Your task to perform on an android device: Open Android settings Image 0: 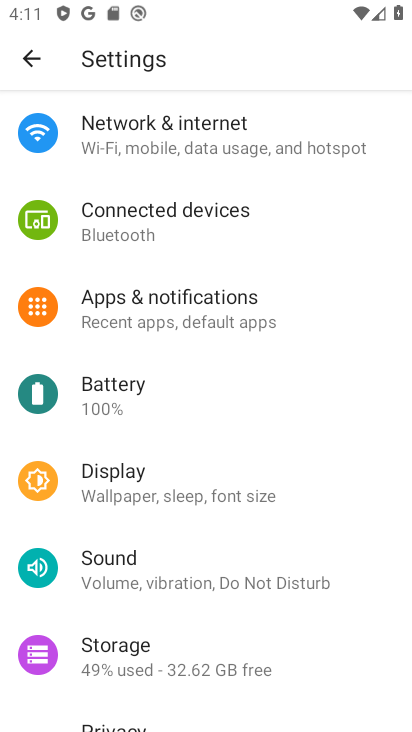
Step 0: drag from (263, 647) to (240, 245)
Your task to perform on an android device: Open Android settings Image 1: 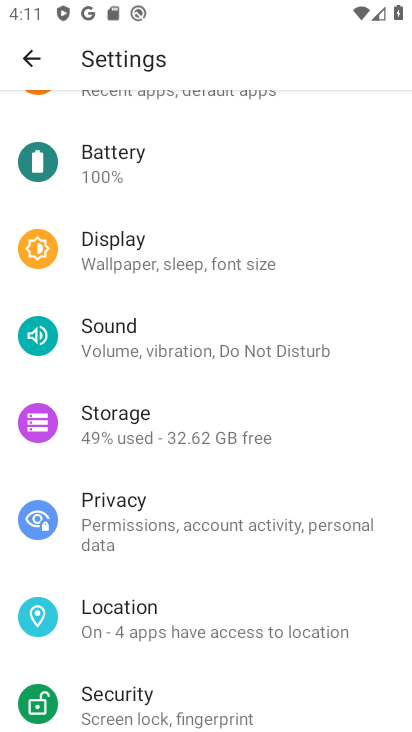
Step 1: task complete